Your task to perform on an android device: set the timer Image 0: 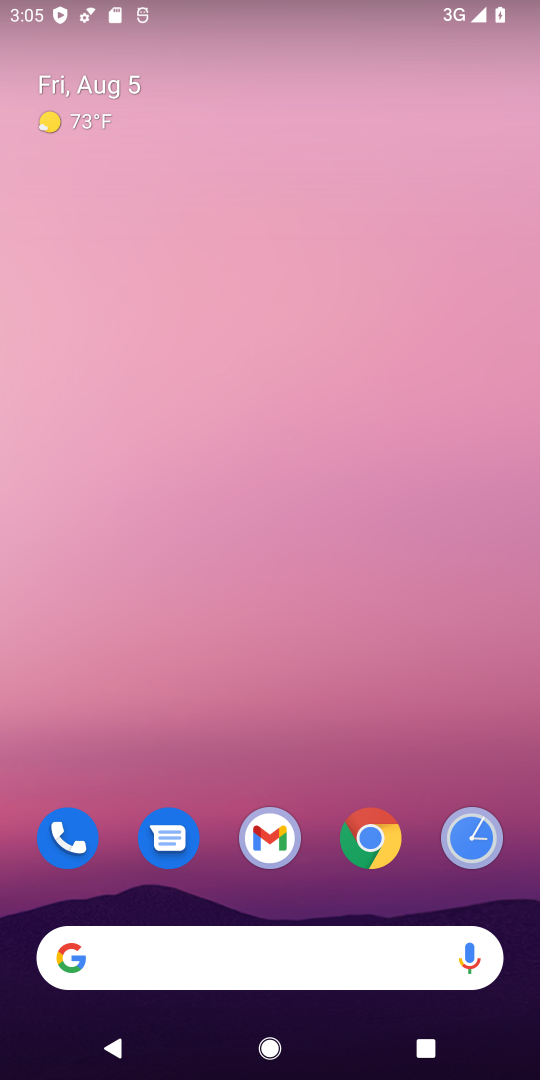
Step 0: drag from (379, 918) to (365, 481)
Your task to perform on an android device: set the timer Image 1: 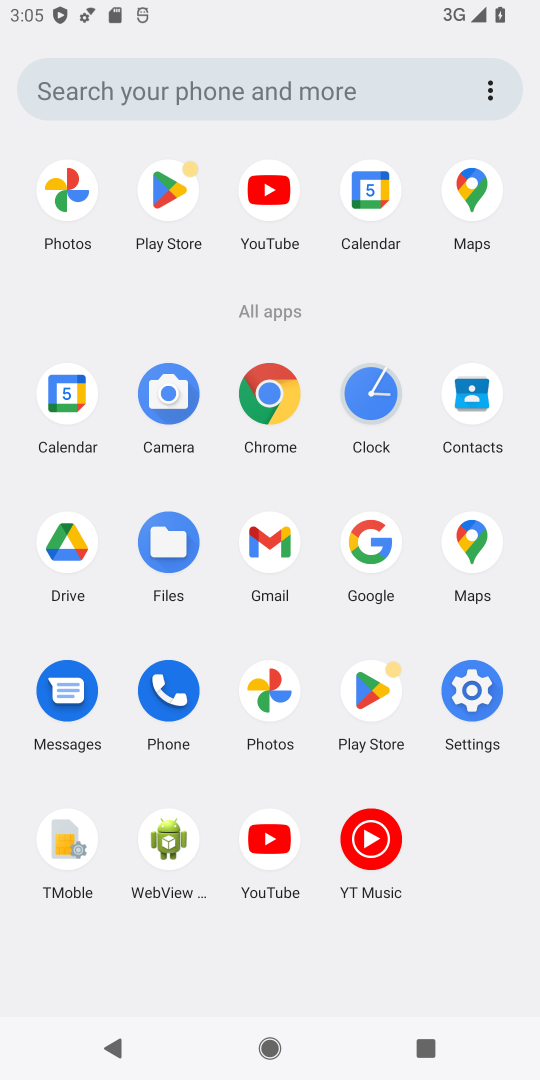
Step 1: click (382, 388)
Your task to perform on an android device: set the timer Image 2: 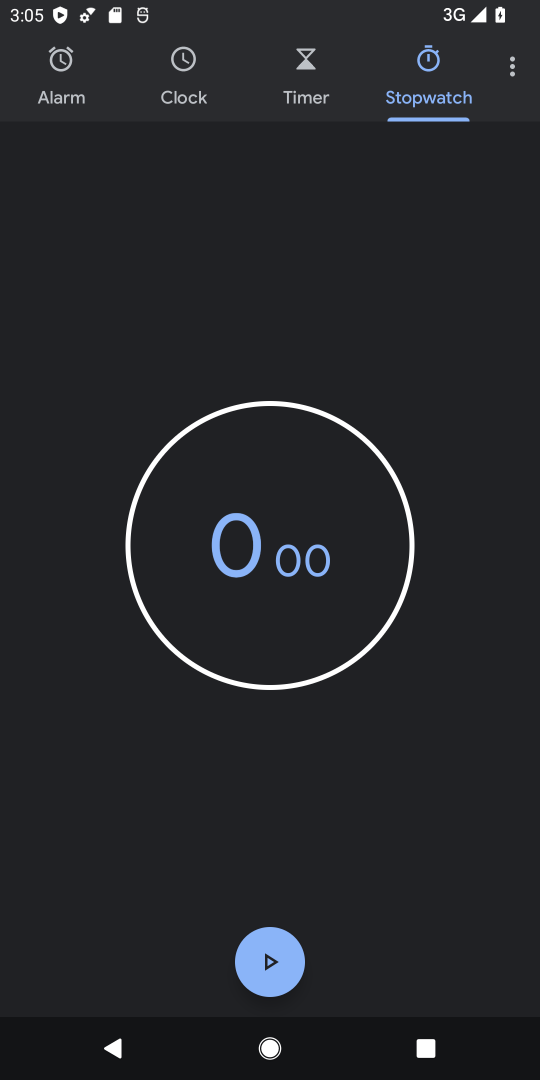
Step 2: click (298, 80)
Your task to perform on an android device: set the timer Image 3: 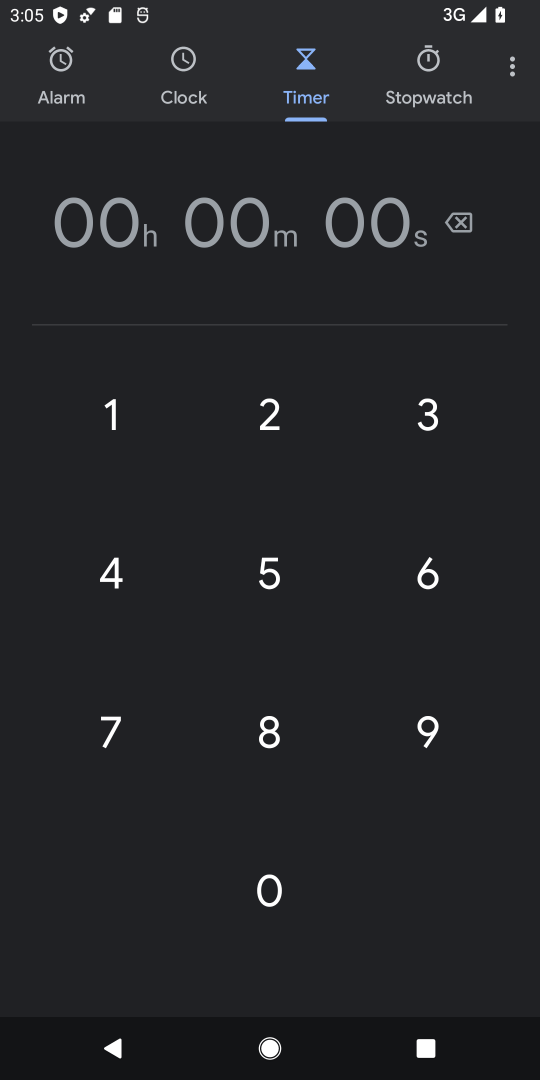
Step 3: click (271, 266)
Your task to perform on an android device: set the timer Image 4: 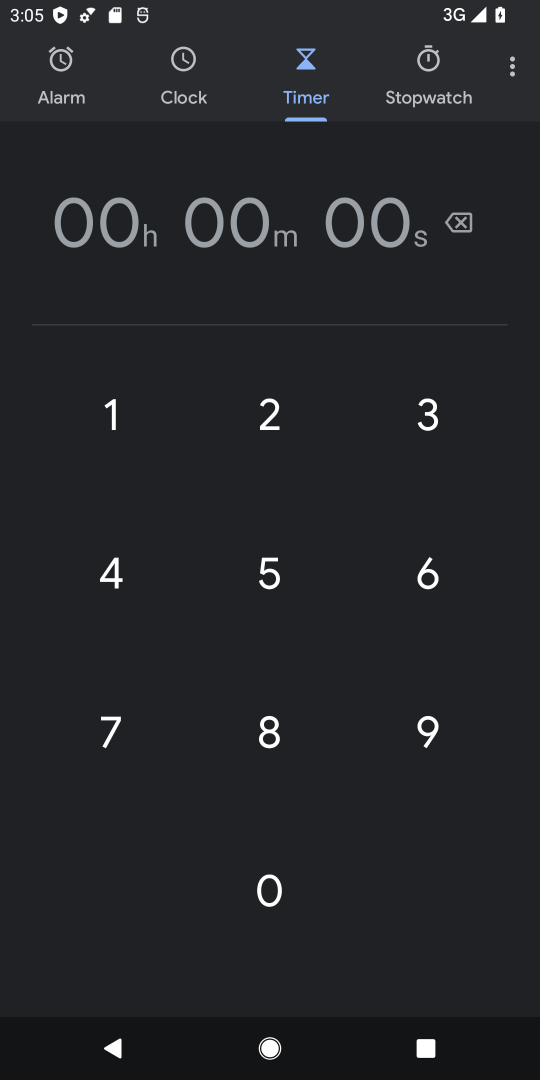
Step 4: type "7877878 "
Your task to perform on an android device: set the timer Image 5: 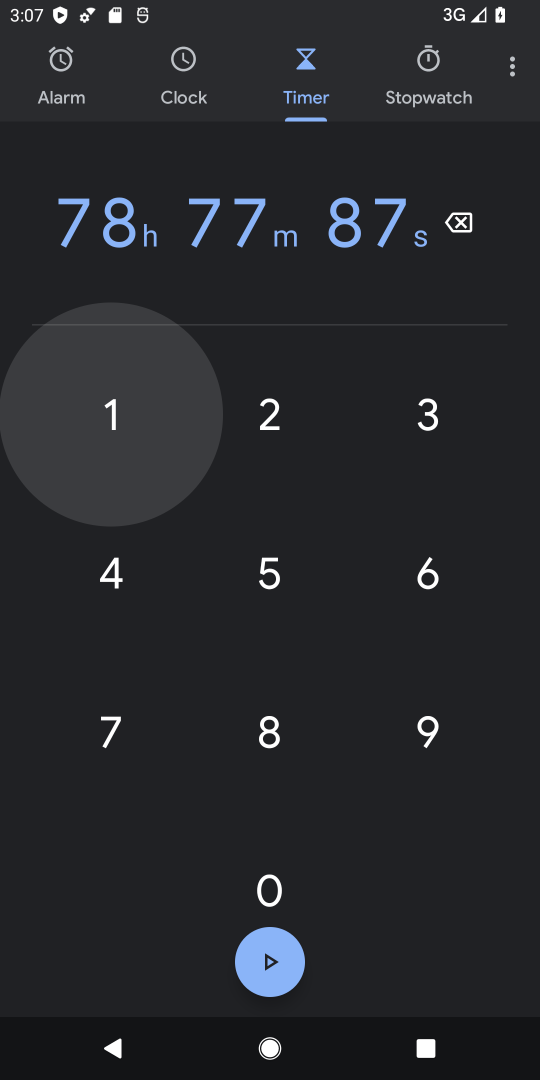
Step 5: task complete